Your task to perform on an android device: Show me the alarms in the clock app Image 0: 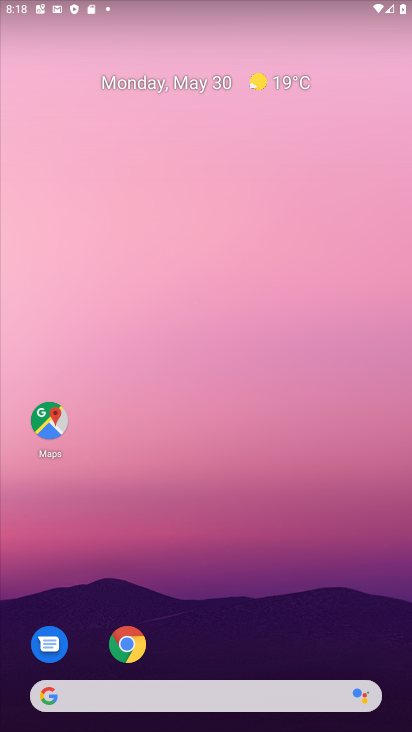
Step 0: drag from (200, 621) to (147, 41)
Your task to perform on an android device: Show me the alarms in the clock app Image 1: 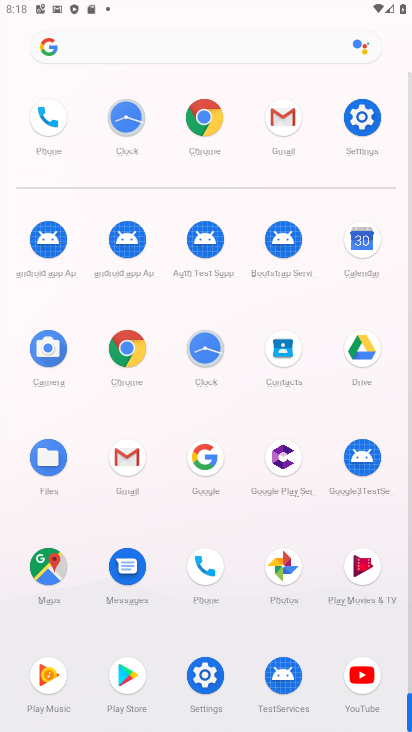
Step 1: drag from (229, 609) to (167, 139)
Your task to perform on an android device: Show me the alarms in the clock app Image 2: 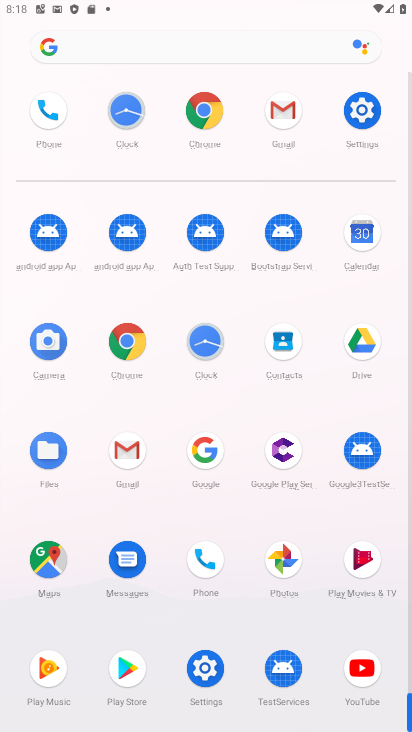
Step 2: click (201, 336)
Your task to perform on an android device: Show me the alarms in the clock app Image 3: 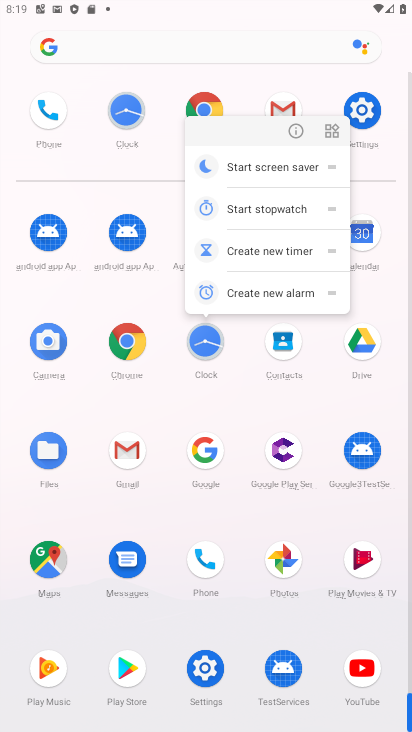
Step 3: click (296, 127)
Your task to perform on an android device: Show me the alarms in the clock app Image 4: 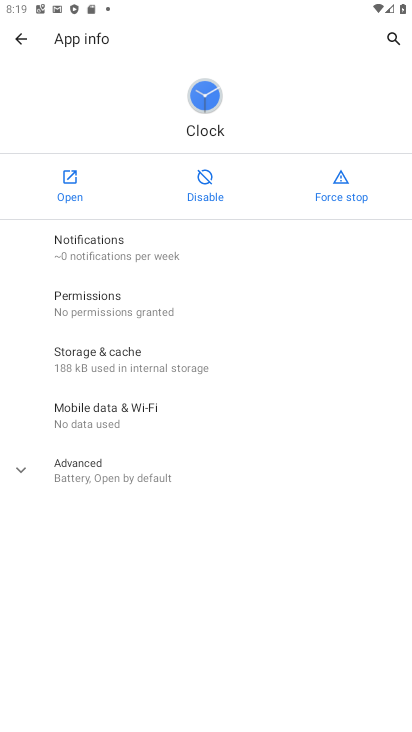
Step 4: click (71, 170)
Your task to perform on an android device: Show me the alarms in the clock app Image 5: 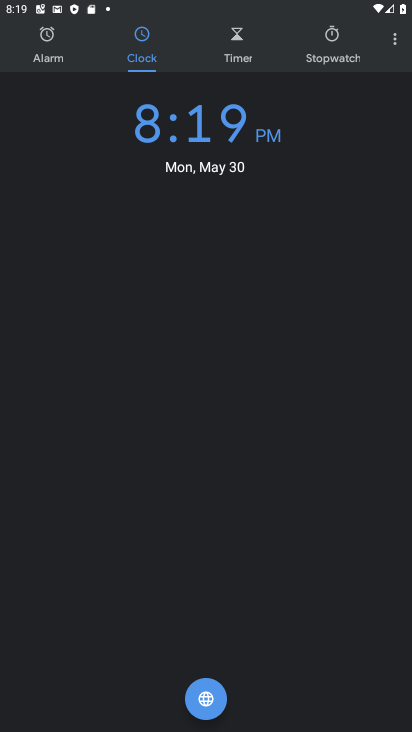
Step 5: click (393, 45)
Your task to perform on an android device: Show me the alarms in the clock app Image 6: 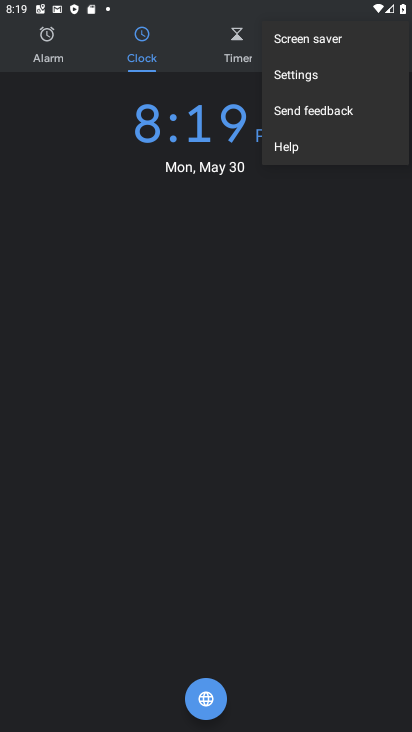
Step 6: click (335, 67)
Your task to perform on an android device: Show me the alarms in the clock app Image 7: 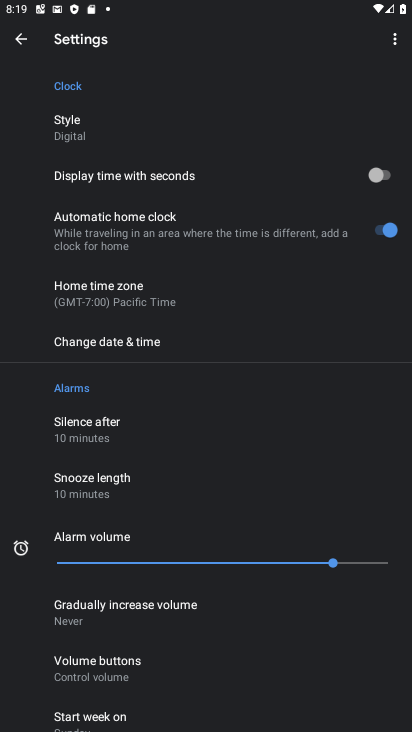
Step 7: drag from (187, 249) to (240, 544)
Your task to perform on an android device: Show me the alarms in the clock app Image 8: 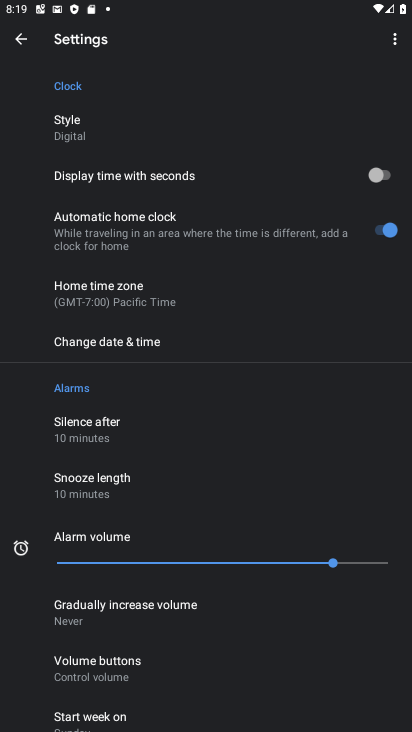
Step 8: click (26, 33)
Your task to perform on an android device: Show me the alarms in the clock app Image 9: 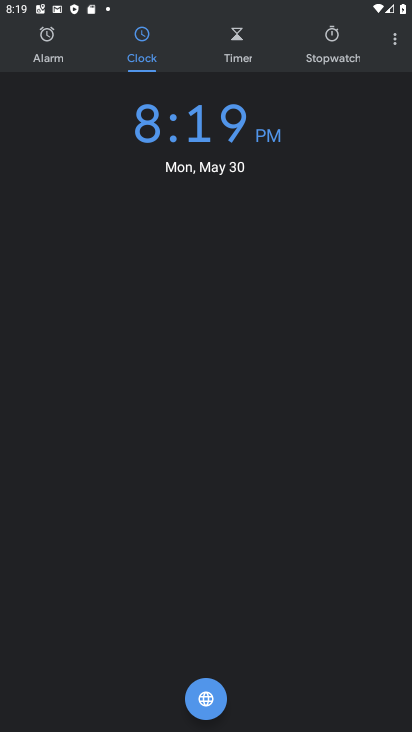
Step 9: click (24, 33)
Your task to perform on an android device: Show me the alarms in the clock app Image 10: 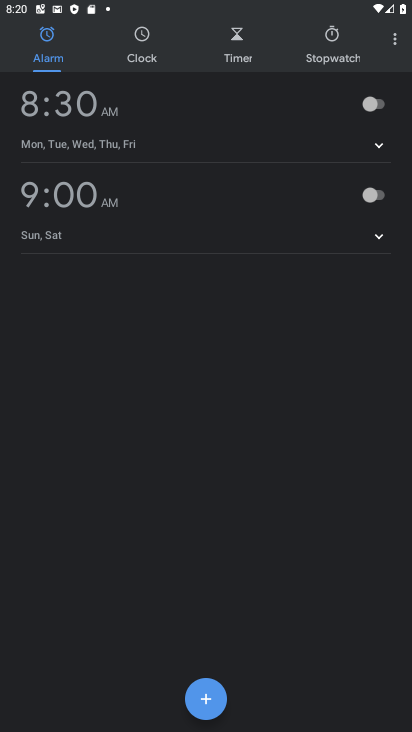
Step 10: task complete